Your task to perform on an android device: turn on location history Image 0: 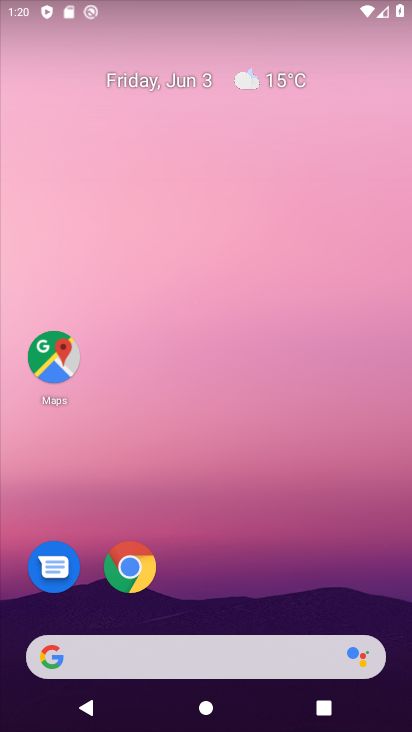
Step 0: drag from (252, 579) to (199, 76)
Your task to perform on an android device: turn on location history Image 1: 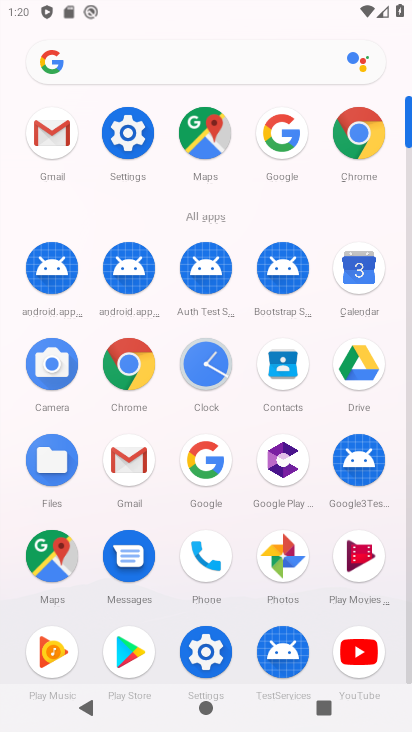
Step 1: click (47, 550)
Your task to perform on an android device: turn on location history Image 2: 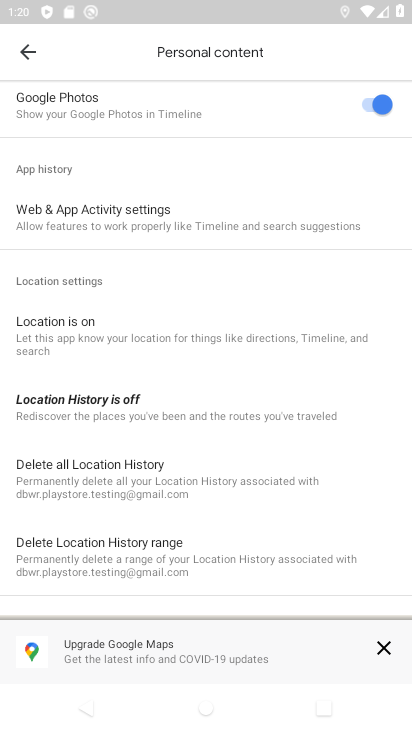
Step 2: click (107, 398)
Your task to perform on an android device: turn on location history Image 3: 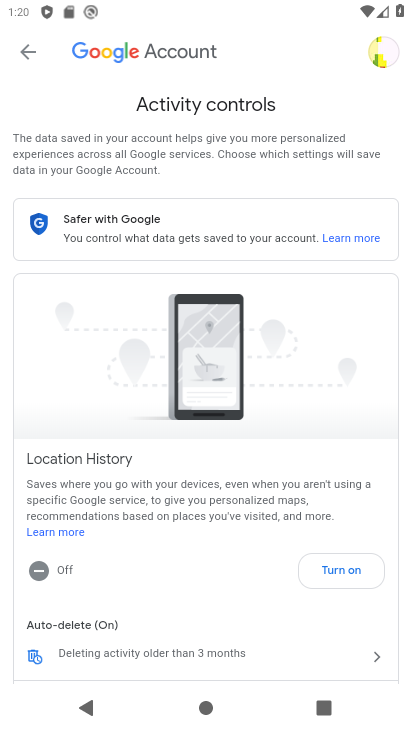
Step 3: click (340, 568)
Your task to perform on an android device: turn on location history Image 4: 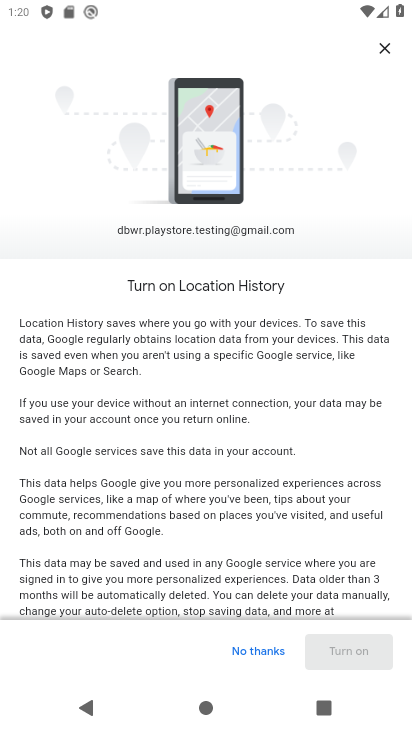
Step 4: drag from (309, 566) to (282, 140)
Your task to perform on an android device: turn on location history Image 5: 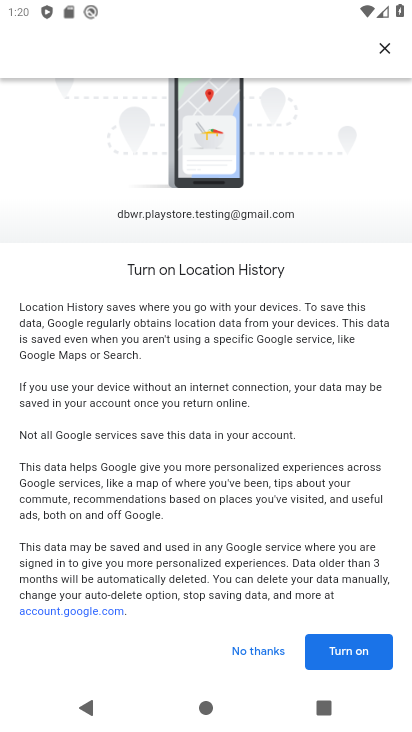
Step 5: drag from (273, 535) to (272, 198)
Your task to perform on an android device: turn on location history Image 6: 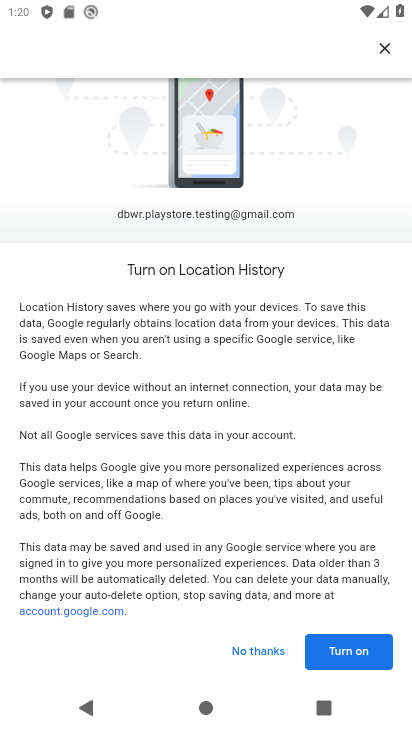
Step 6: click (348, 651)
Your task to perform on an android device: turn on location history Image 7: 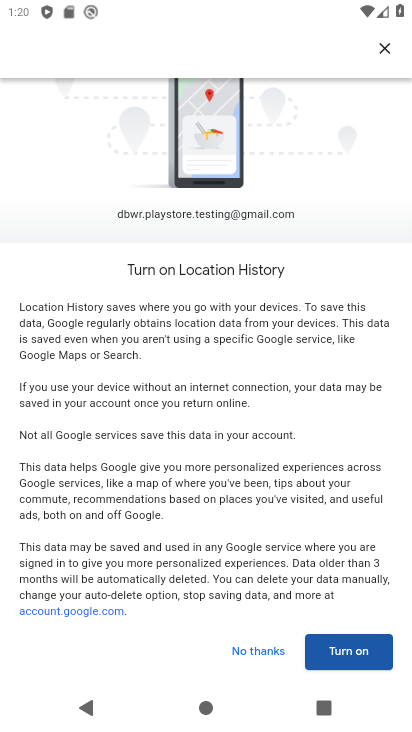
Step 7: click (348, 651)
Your task to perform on an android device: turn on location history Image 8: 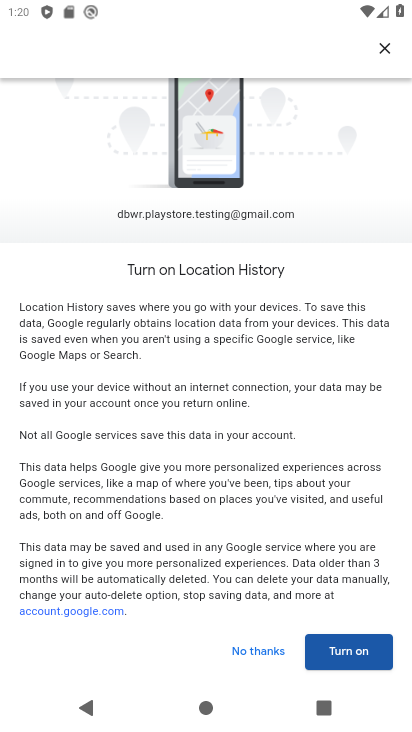
Step 8: click (348, 651)
Your task to perform on an android device: turn on location history Image 9: 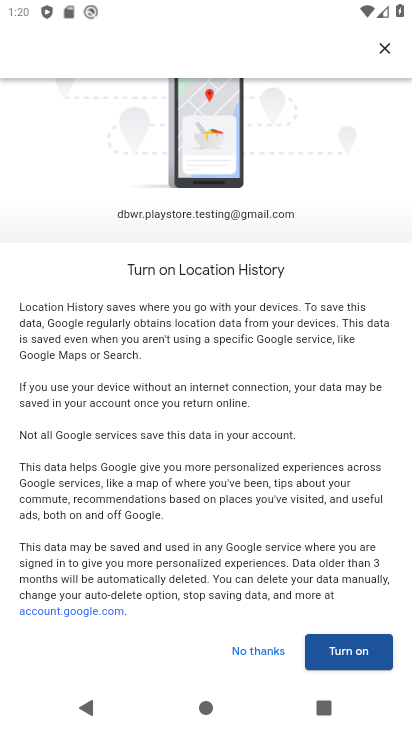
Step 9: click (348, 651)
Your task to perform on an android device: turn on location history Image 10: 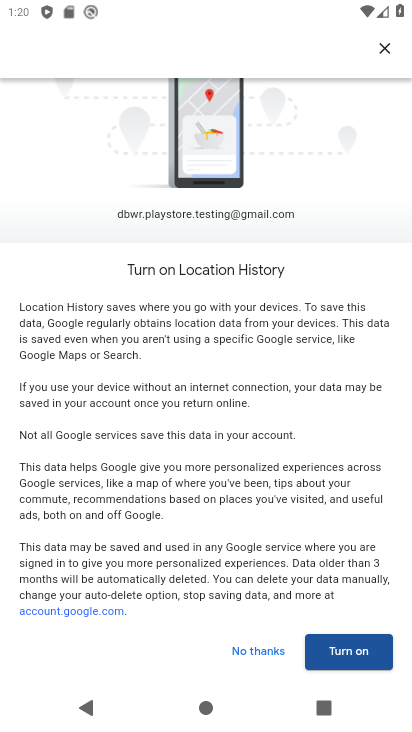
Step 10: click (348, 651)
Your task to perform on an android device: turn on location history Image 11: 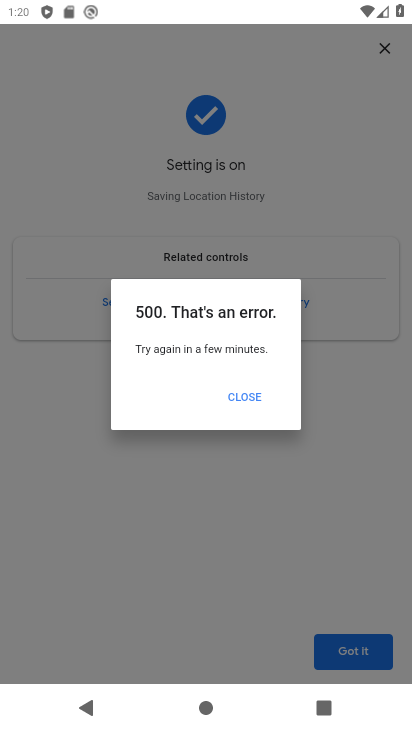
Step 11: click (231, 398)
Your task to perform on an android device: turn on location history Image 12: 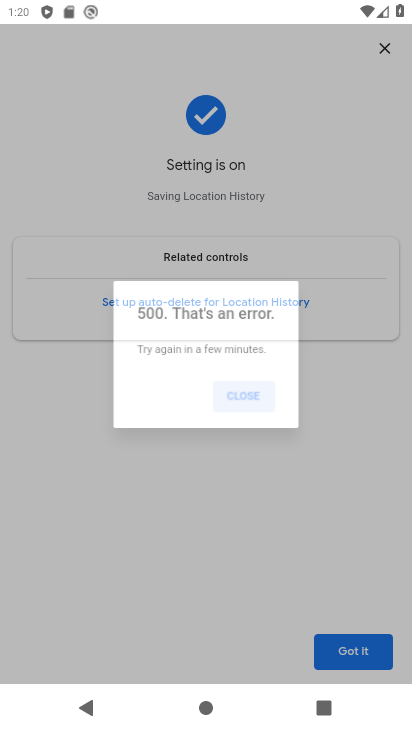
Step 12: click (361, 653)
Your task to perform on an android device: turn on location history Image 13: 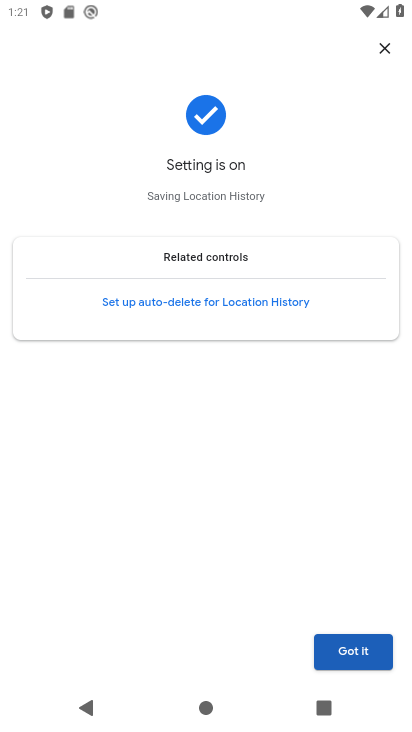
Step 13: click (358, 652)
Your task to perform on an android device: turn on location history Image 14: 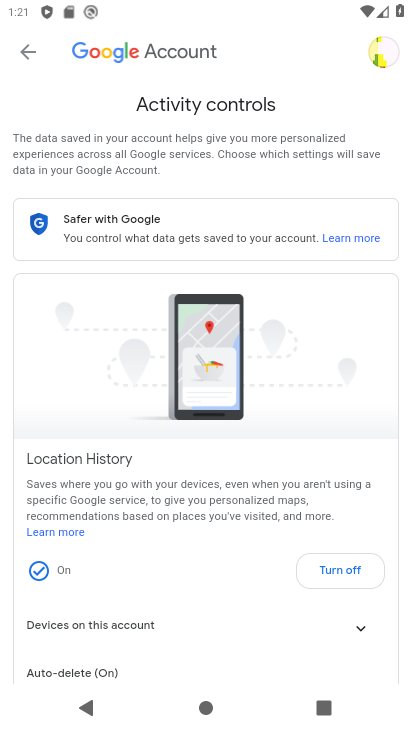
Step 14: task complete